Your task to perform on an android device: delete a single message in the gmail app Image 0: 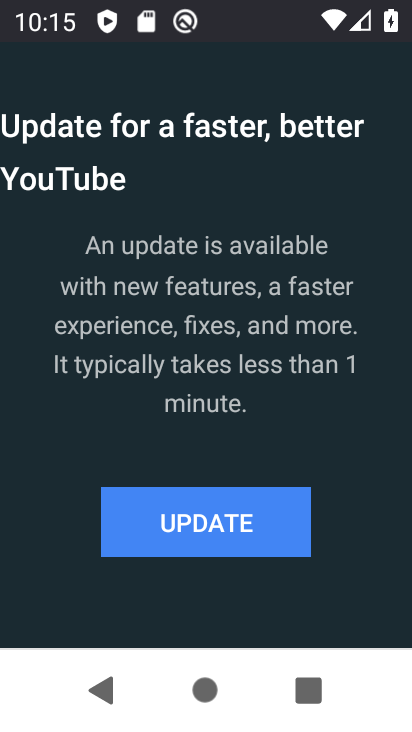
Step 0: press home button
Your task to perform on an android device: delete a single message in the gmail app Image 1: 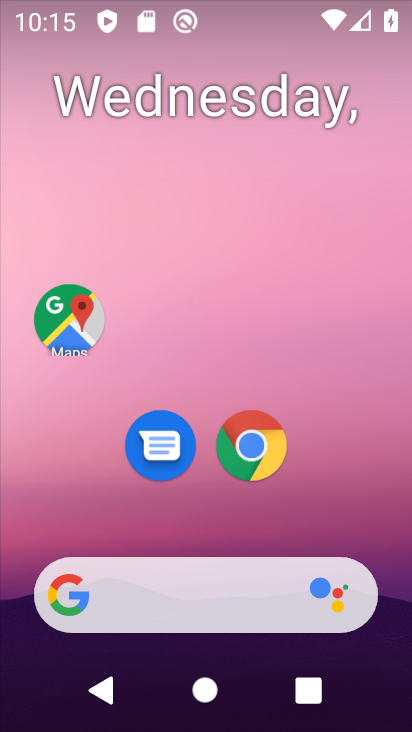
Step 1: drag from (192, 508) to (289, 52)
Your task to perform on an android device: delete a single message in the gmail app Image 2: 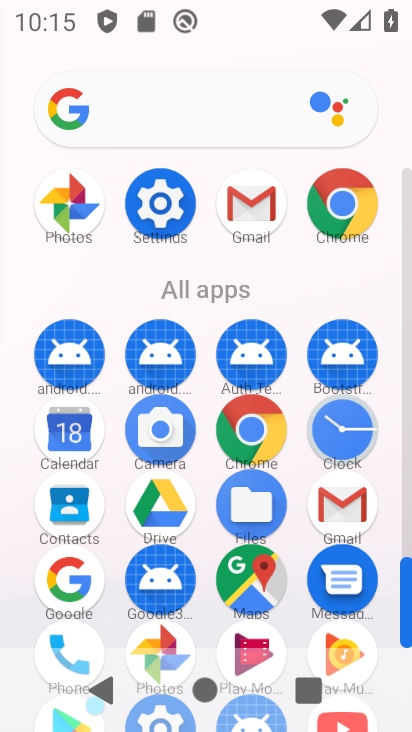
Step 2: click (255, 194)
Your task to perform on an android device: delete a single message in the gmail app Image 3: 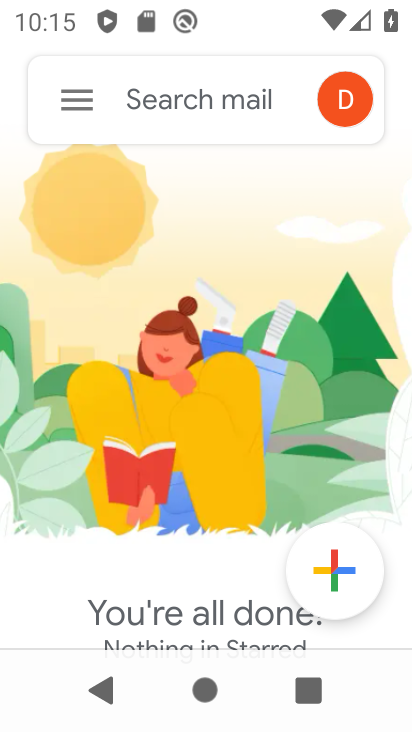
Step 3: click (50, 97)
Your task to perform on an android device: delete a single message in the gmail app Image 4: 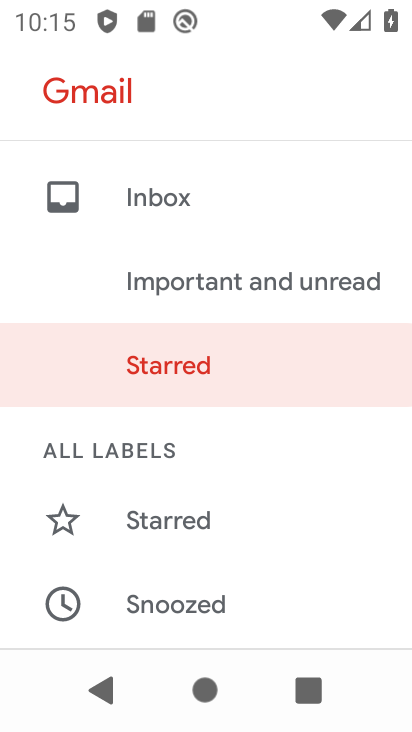
Step 4: drag from (257, 611) to (302, 97)
Your task to perform on an android device: delete a single message in the gmail app Image 5: 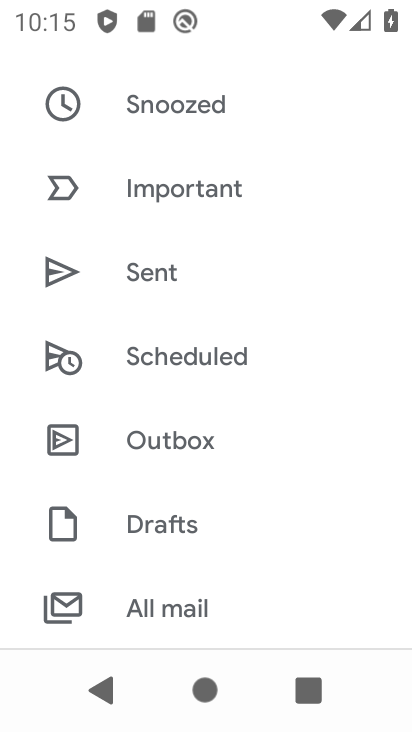
Step 5: click (169, 592)
Your task to perform on an android device: delete a single message in the gmail app Image 6: 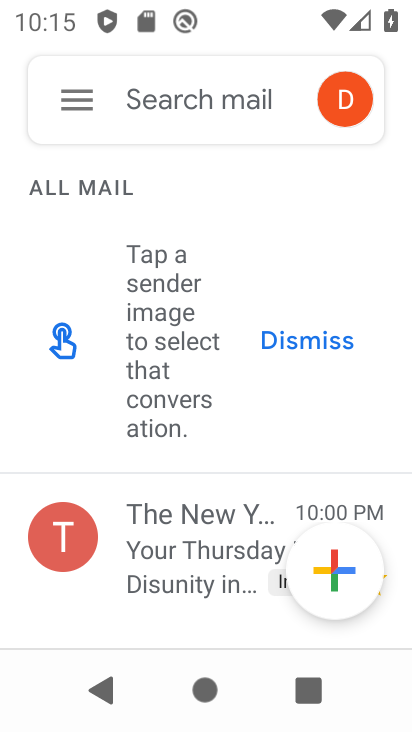
Step 6: drag from (153, 576) to (243, 232)
Your task to perform on an android device: delete a single message in the gmail app Image 7: 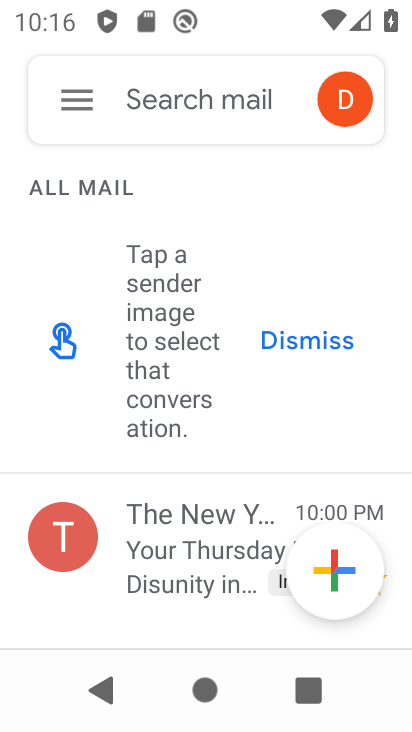
Step 7: click (189, 550)
Your task to perform on an android device: delete a single message in the gmail app Image 8: 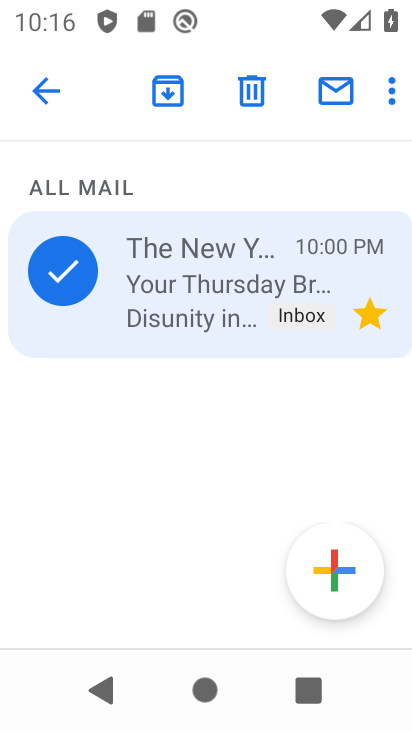
Step 8: click (255, 92)
Your task to perform on an android device: delete a single message in the gmail app Image 9: 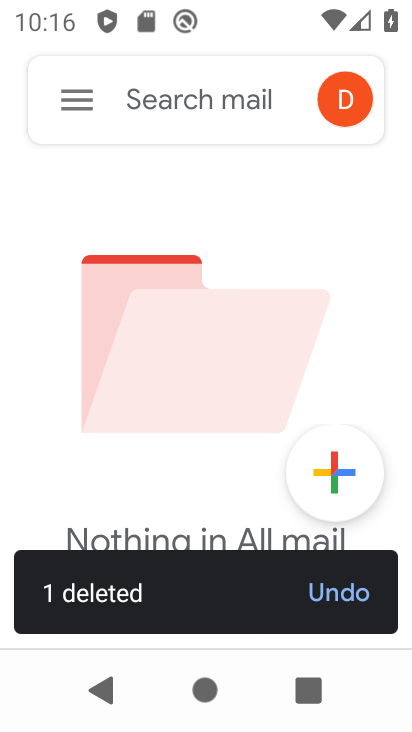
Step 9: task complete